Your task to perform on an android device: check out phone information Image 0: 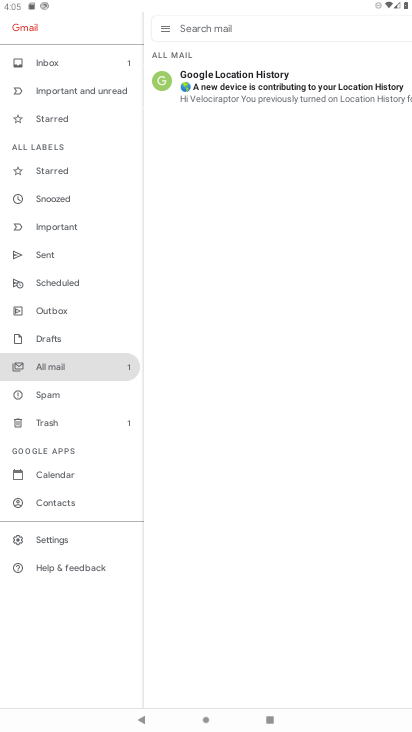
Step 0: press home button
Your task to perform on an android device: check out phone information Image 1: 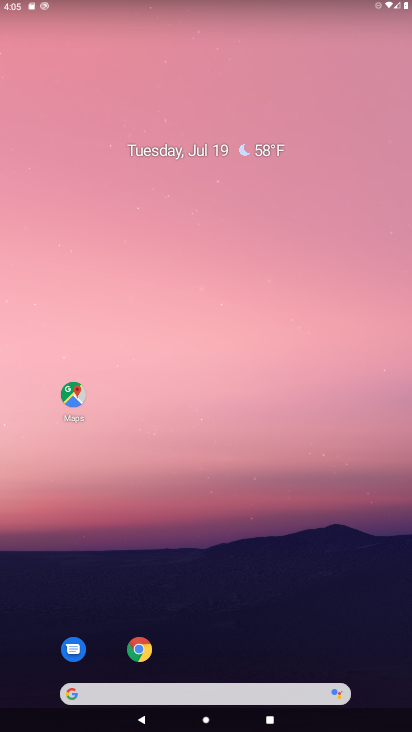
Step 1: drag from (227, 686) to (252, 372)
Your task to perform on an android device: check out phone information Image 2: 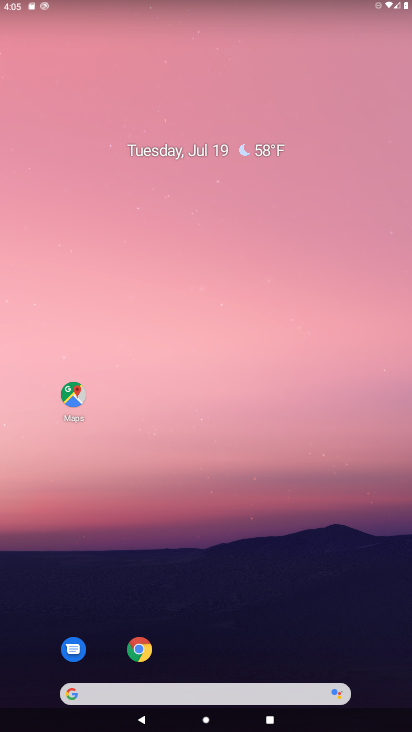
Step 2: drag from (220, 713) to (205, 164)
Your task to perform on an android device: check out phone information Image 3: 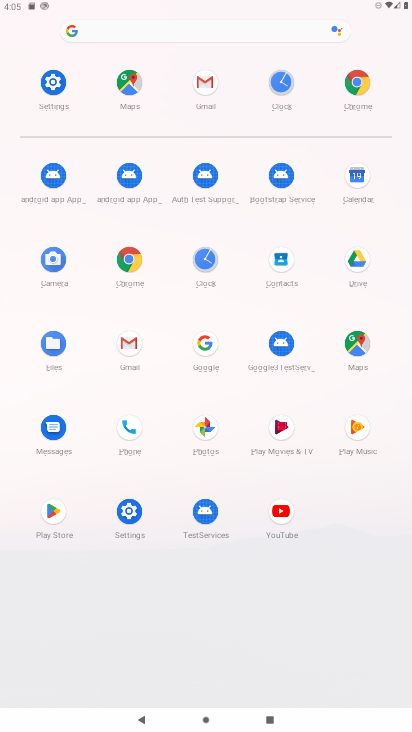
Step 3: click (131, 512)
Your task to perform on an android device: check out phone information Image 4: 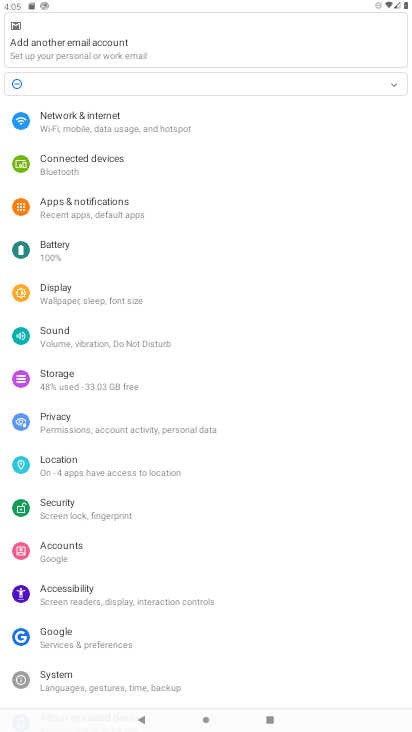
Step 4: drag from (129, 671) to (103, 317)
Your task to perform on an android device: check out phone information Image 5: 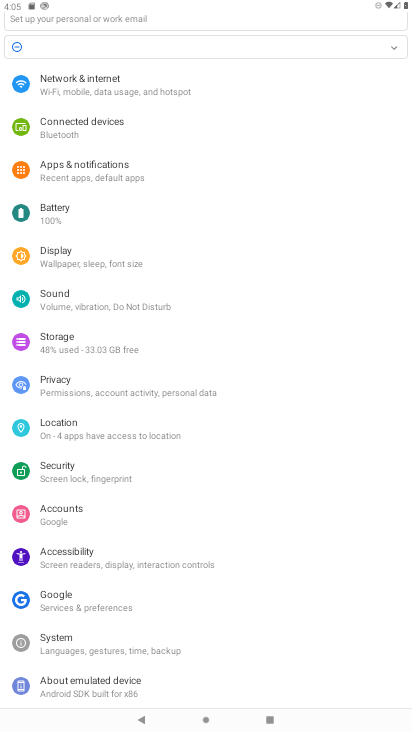
Step 5: click (109, 688)
Your task to perform on an android device: check out phone information Image 6: 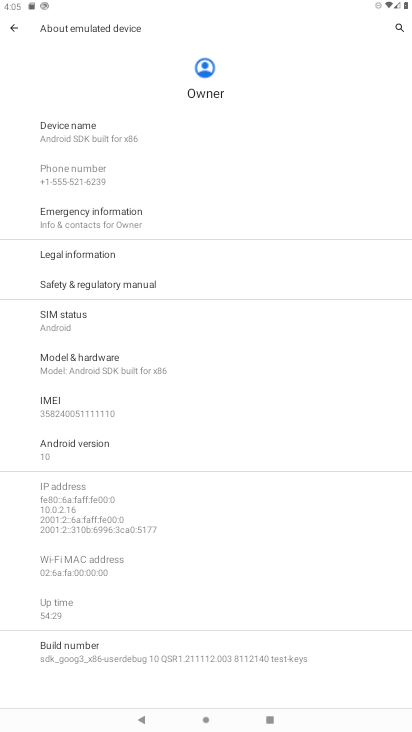
Step 6: task complete